Your task to perform on an android device: Show me recent news Image 0: 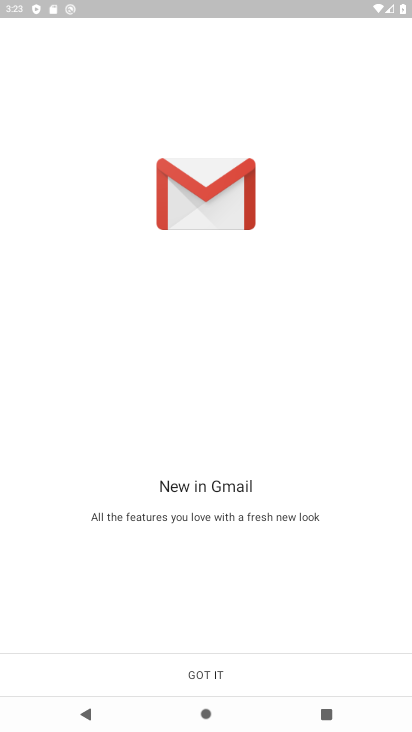
Step 0: press back button
Your task to perform on an android device: Show me recent news Image 1: 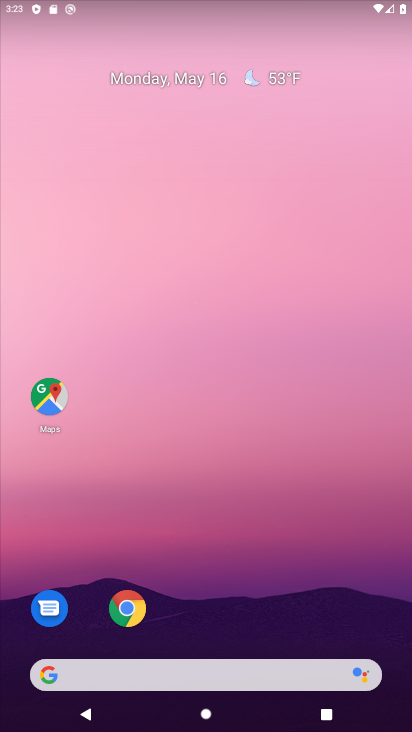
Step 1: drag from (239, 582) to (128, 125)
Your task to perform on an android device: Show me recent news Image 2: 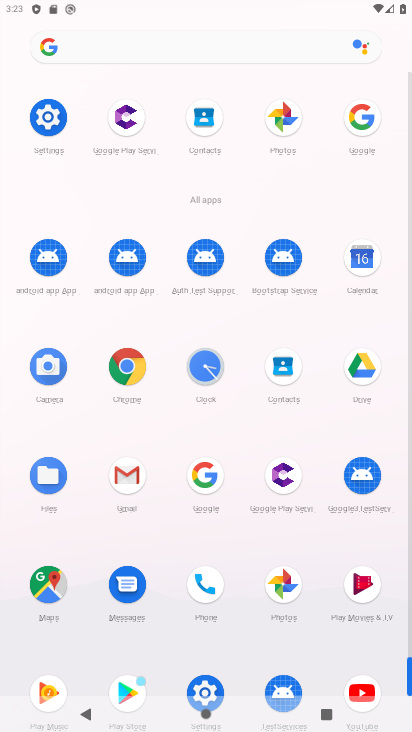
Step 2: click (360, 116)
Your task to perform on an android device: Show me recent news Image 3: 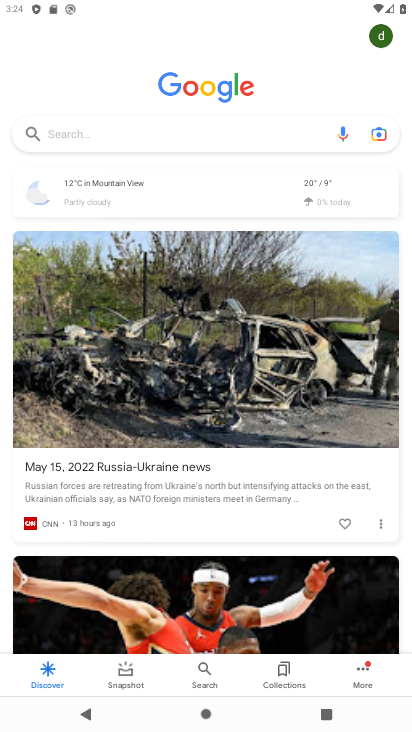
Step 3: click (176, 138)
Your task to perform on an android device: Show me recent news Image 4: 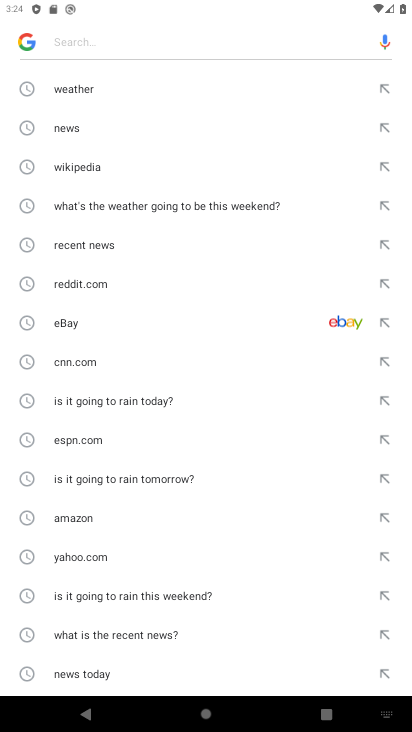
Step 4: click (124, 45)
Your task to perform on an android device: Show me recent news Image 5: 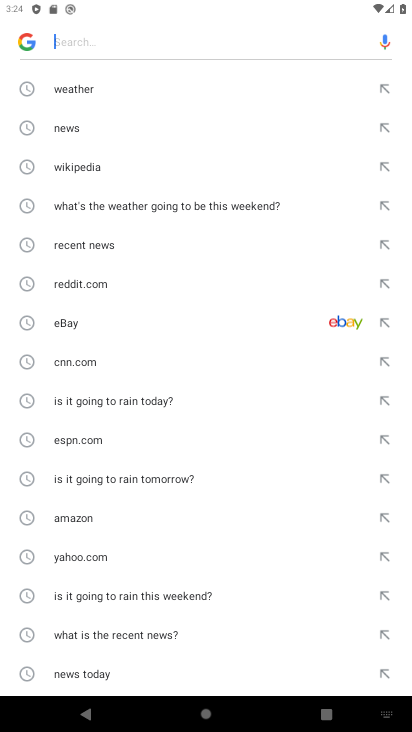
Step 5: type "recent news"
Your task to perform on an android device: Show me recent news Image 6: 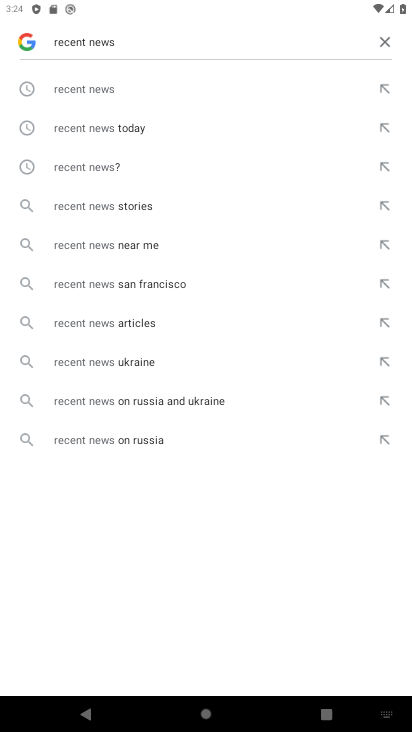
Step 6: click (80, 84)
Your task to perform on an android device: Show me recent news Image 7: 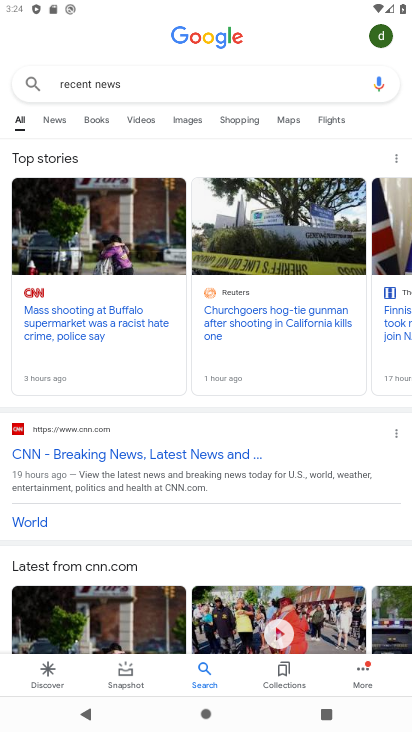
Step 7: task complete